Your task to perform on an android device: Open the phone app and click the voicemail tab. Image 0: 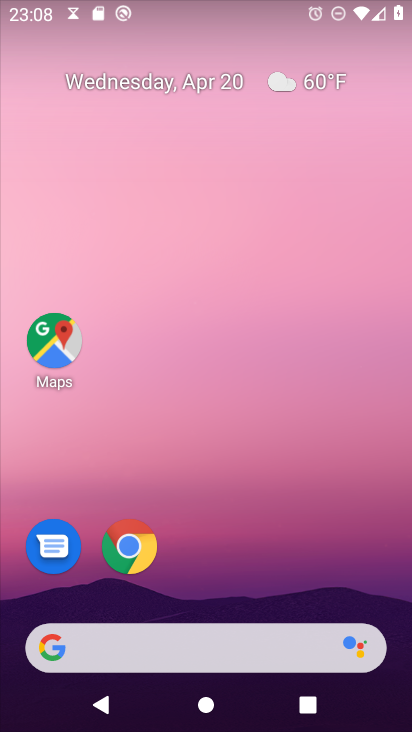
Step 0: drag from (242, 554) to (242, 88)
Your task to perform on an android device: Open the phone app and click the voicemail tab. Image 1: 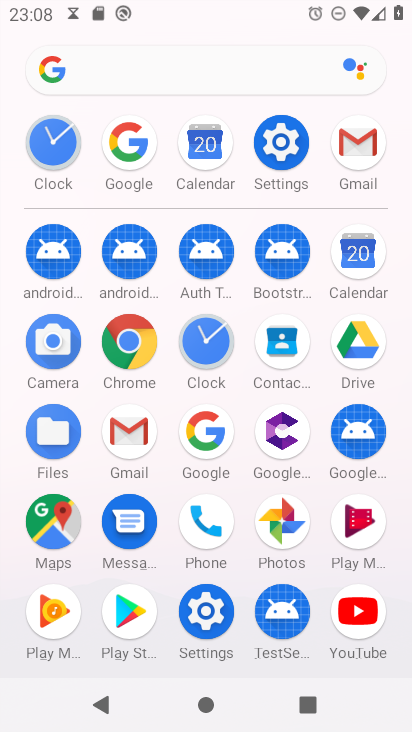
Step 1: click (201, 520)
Your task to perform on an android device: Open the phone app and click the voicemail tab. Image 2: 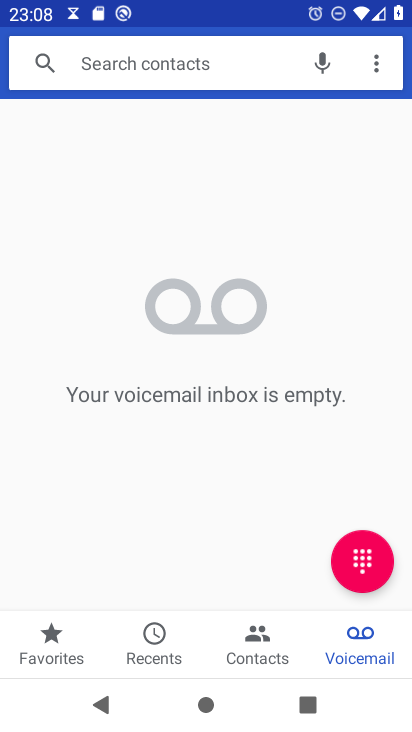
Step 2: task complete